Your task to perform on an android device: open app "Yahoo Mail" Image 0: 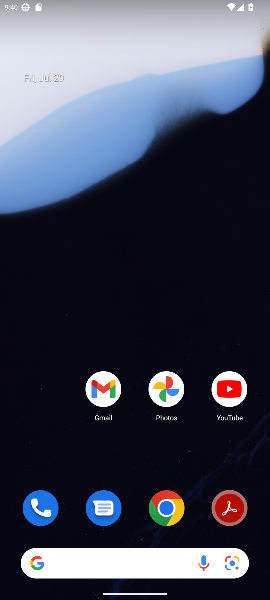
Step 0: drag from (172, 509) to (178, 71)
Your task to perform on an android device: open app "Yahoo Mail" Image 1: 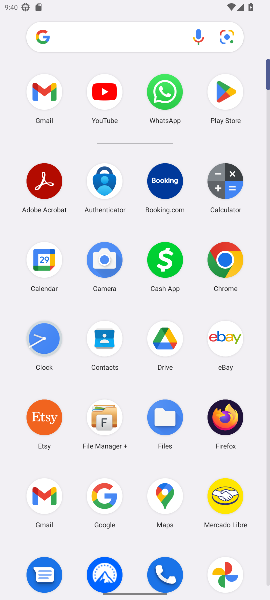
Step 1: click (225, 85)
Your task to perform on an android device: open app "Yahoo Mail" Image 2: 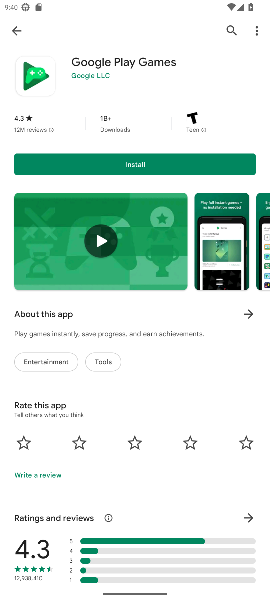
Step 2: click (229, 25)
Your task to perform on an android device: open app "Yahoo Mail" Image 3: 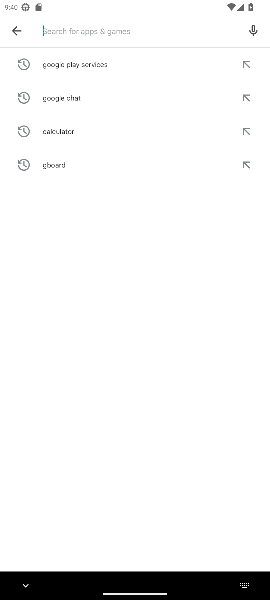
Step 3: type "yahoo mail"
Your task to perform on an android device: open app "Yahoo Mail" Image 4: 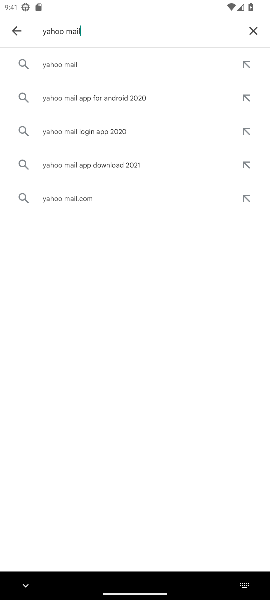
Step 4: click (68, 66)
Your task to perform on an android device: open app "Yahoo Mail" Image 5: 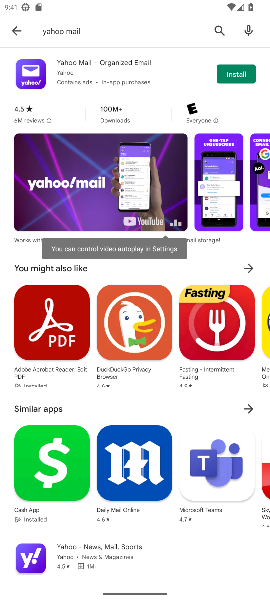
Step 5: task complete